Your task to perform on an android device: open app "Paramount+ | Peak Streaming" (install if not already installed) Image 0: 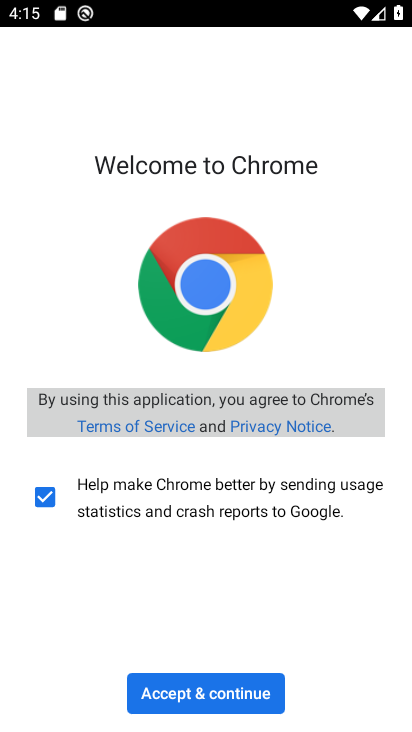
Step 0: press home button
Your task to perform on an android device: open app "Paramount+ | Peak Streaming" (install if not already installed) Image 1: 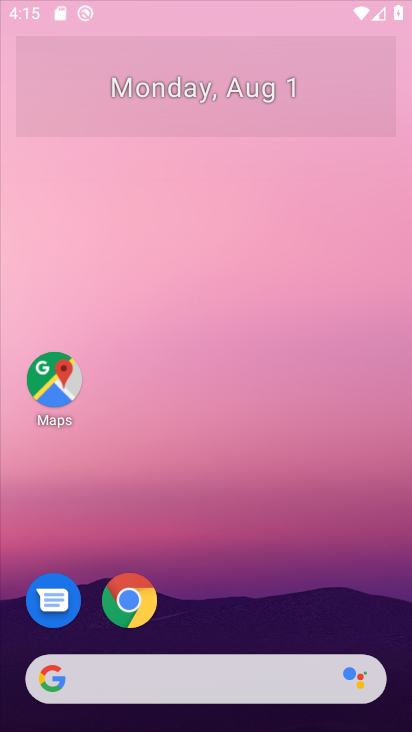
Step 1: drag from (184, 212) to (171, 41)
Your task to perform on an android device: open app "Paramount+ | Peak Streaming" (install if not already installed) Image 2: 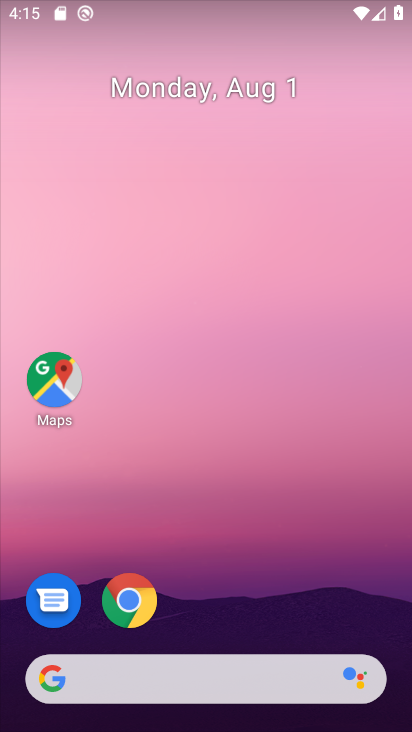
Step 2: drag from (226, 395) to (120, 19)
Your task to perform on an android device: open app "Paramount+ | Peak Streaming" (install if not already installed) Image 3: 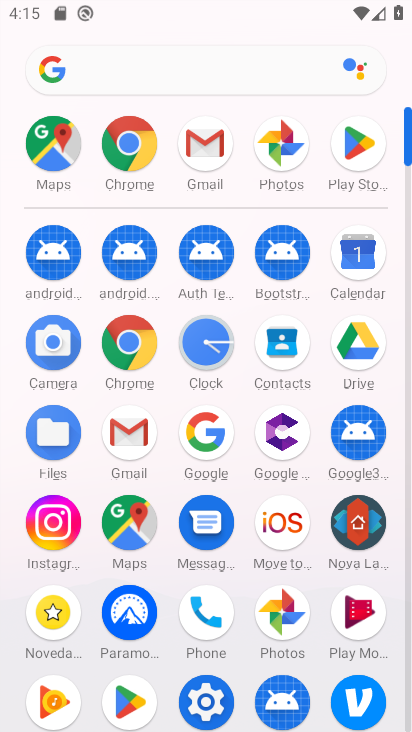
Step 3: click (361, 138)
Your task to perform on an android device: open app "Paramount+ | Peak Streaming" (install if not already installed) Image 4: 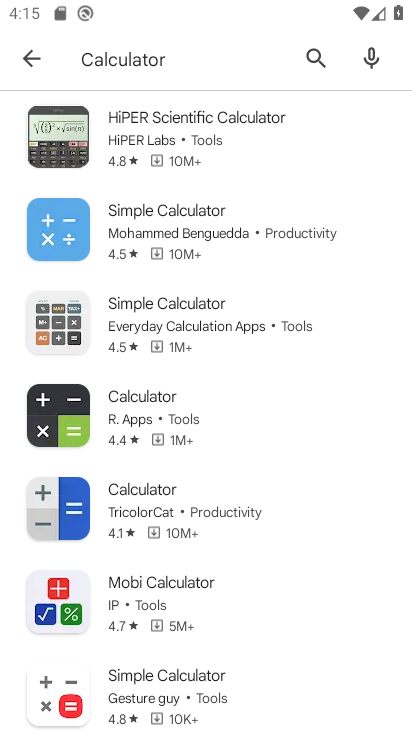
Step 4: click (245, 70)
Your task to perform on an android device: open app "Paramount+ | Peak Streaming" (install if not already installed) Image 5: 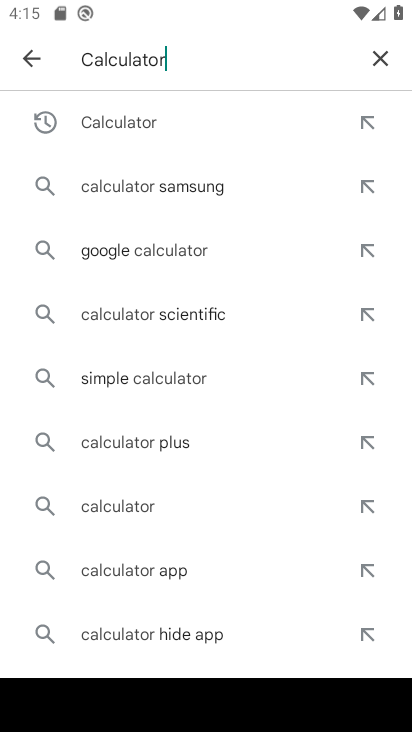
Step 5: click (383, 55)
Your task to perform on an android device: open app "Paramount+ | Peak Streaming" (install if not already installed) Image 6: 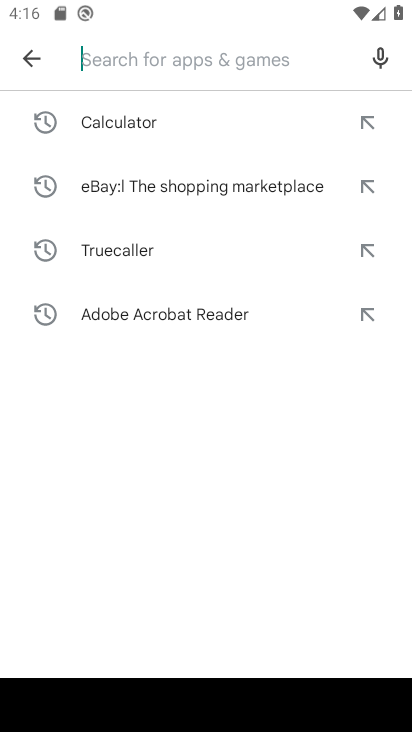
Step 6: type "Paramount+ | Peak Streaming"
Your task to perform on an android device: open app "Paramount+ | Peak Streaming" (install if not already installed) Image 7: 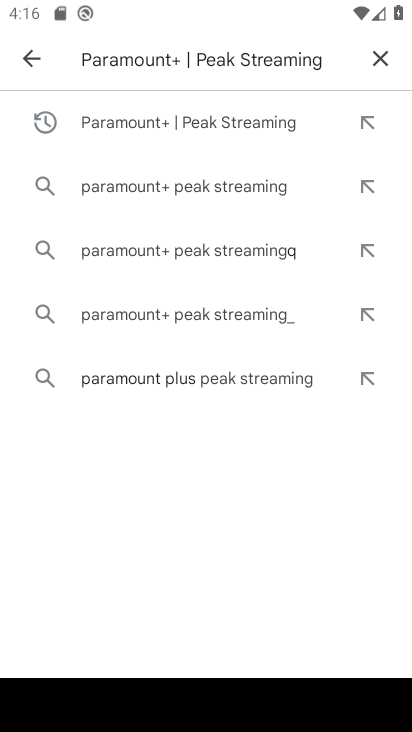
Step 7: press enter
Your task to perform on an android device: open app "Paramount+ | Peak Streaming" (install if not already installed) Image 8: 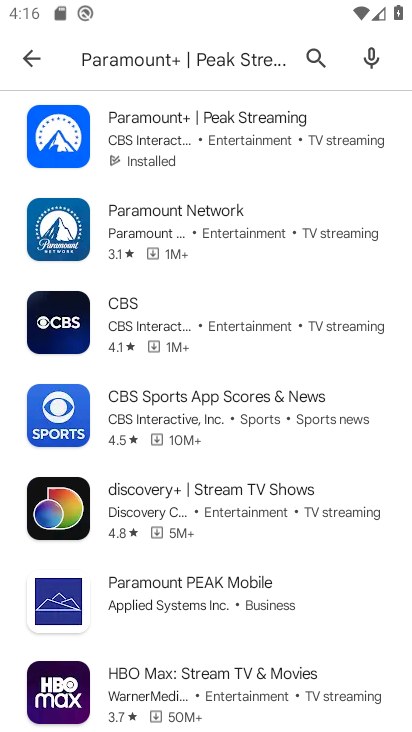
Step 8: click (264, 140)
Your task to perform on an android device: open app "Paramount+ | Peak Streaming" (install if not already installed) Image 9: 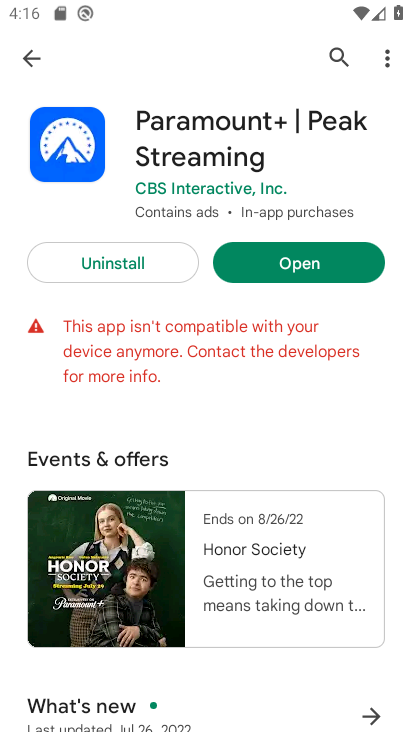
Step 9: click (290, 259)
Your task to perform on an android device: open app "Paramount+ | Peak Streaming" (install if not already installed) Image 10: 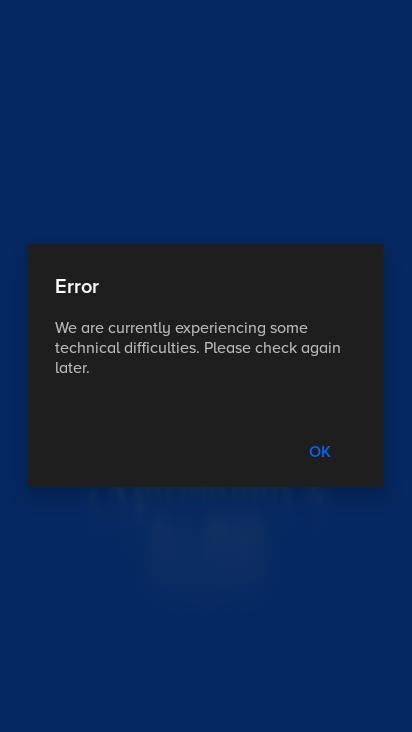
Step 10: task complete